Your task to perform on an android device: turn on the 12-hour format for clock Image 0: 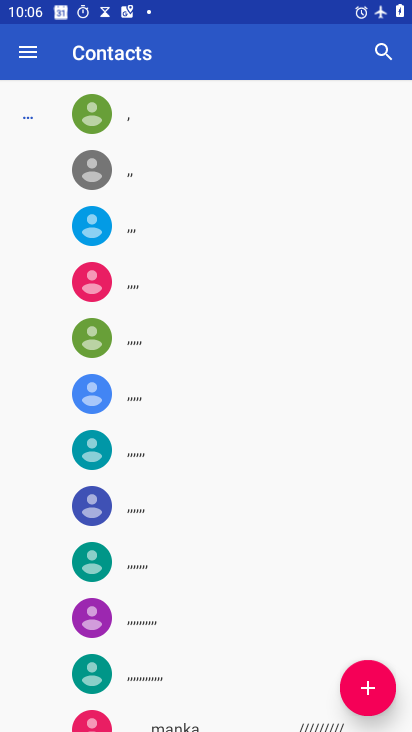
Step 0: press home button
Your task to perform on an android device: turn on the 12-hour format for clock Image 1: 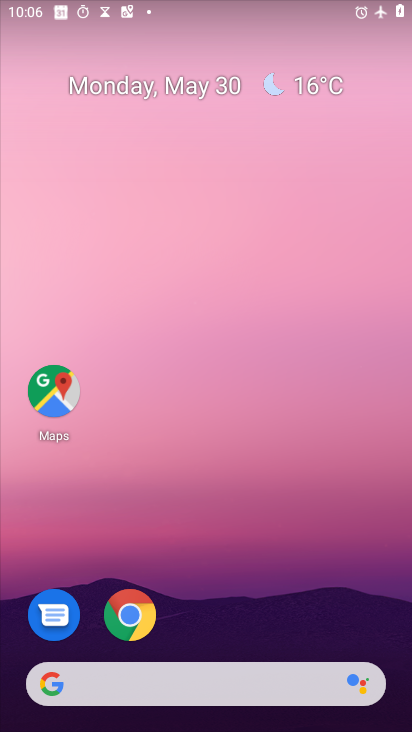
Step 1: drag from (302, 484) to (272, 47)
Your task to perform on an android device: turn on the 12-hour format for clock Image 2: 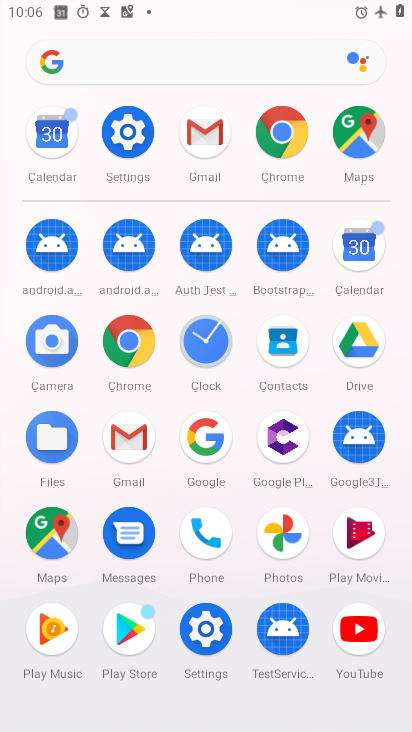
Step 2: click (199, 348)
Your task to perform on an android device: turn on the 12-hour format for clock Image 3: 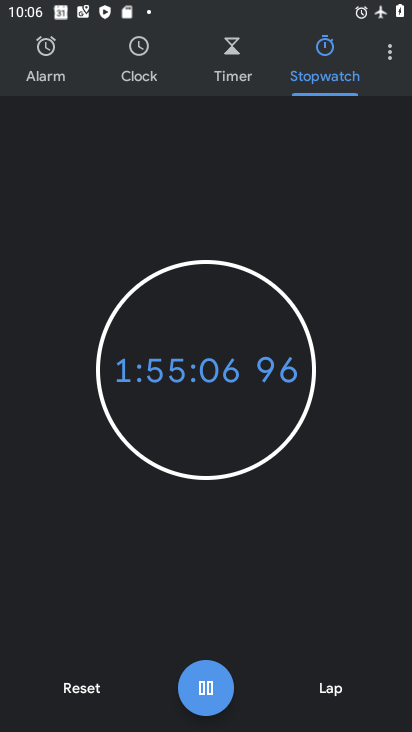
Step 3: click (392, 57)
Your task to perform on an android device: turn on the 12-hour format for clock Image 4: 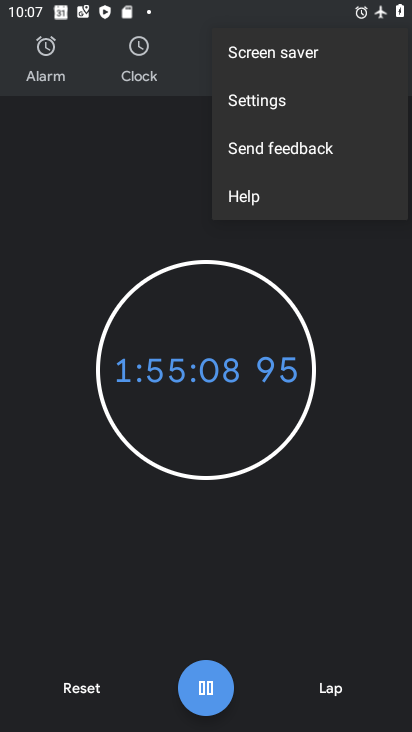
Step 4: click (252, 112)
Your task to perform on an android device: turn on the 12-hour format for clock Image 5: 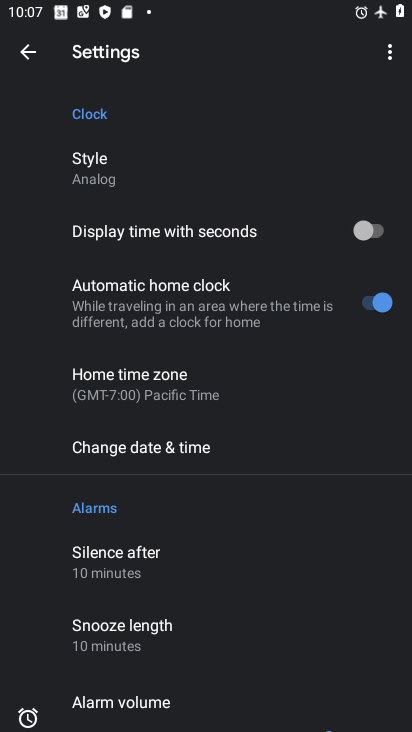
Step 5: drag from (222, 647) to (284, 305)
Your task to perform on an android device: turn on the 12-hour format for clock Image 6: 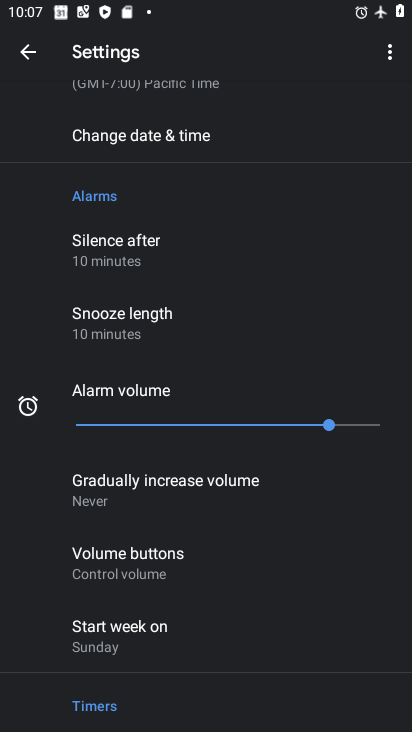
Step 6: click (128, 145)
Your task to perform on an android device: turn on the 12-hour format for clock Image 7: 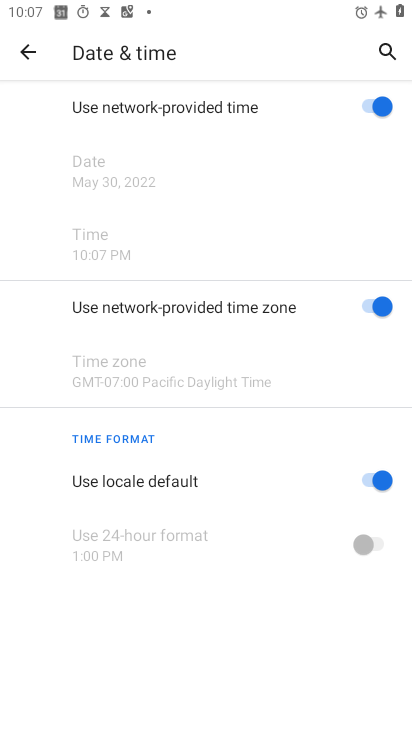
Step 7: task complete